Your task to perform on an android device: Open notification settings Image 0: 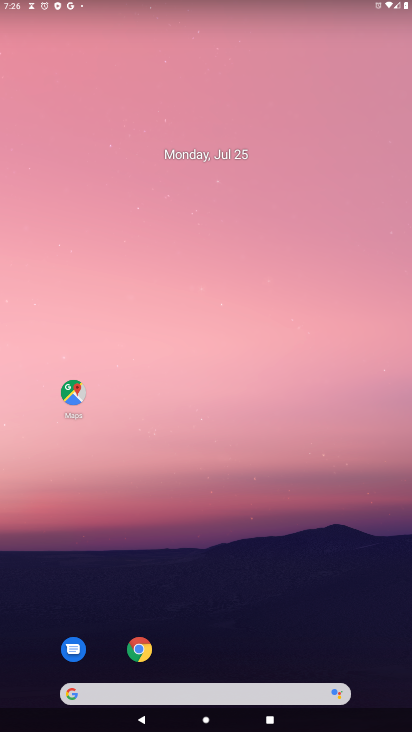
Step 0: click (167, 8)
Your task to perform on an android device: Open notification settings Image 1: 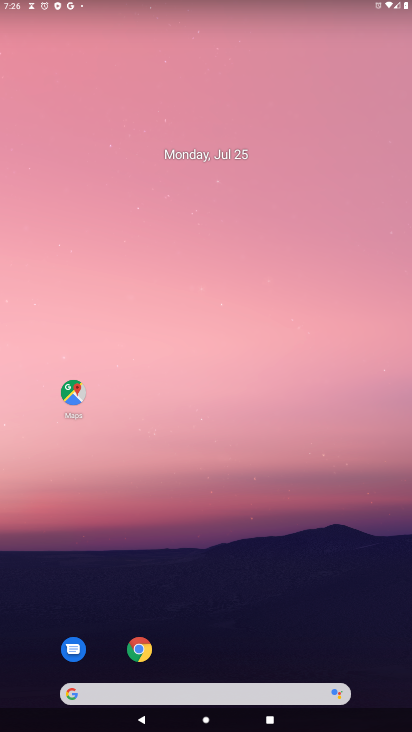
Step 1: drag from (303, 679) to (292, 3)
Your task to perform on an android device: Open notification settings Image 2: 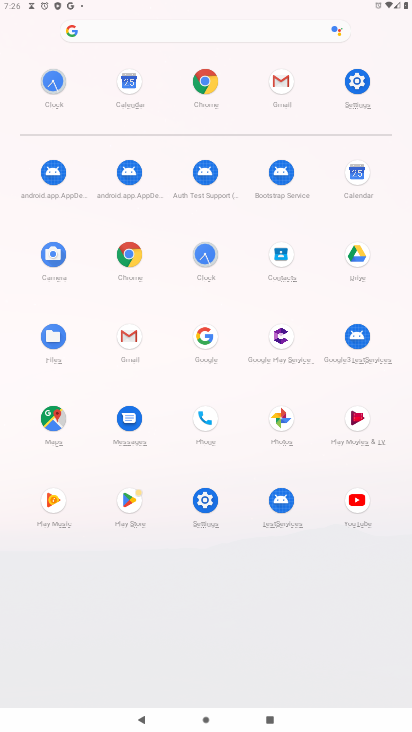
Step 2: click (363, 77)
Your task to perform on an android device: Open notification settings Image 3: 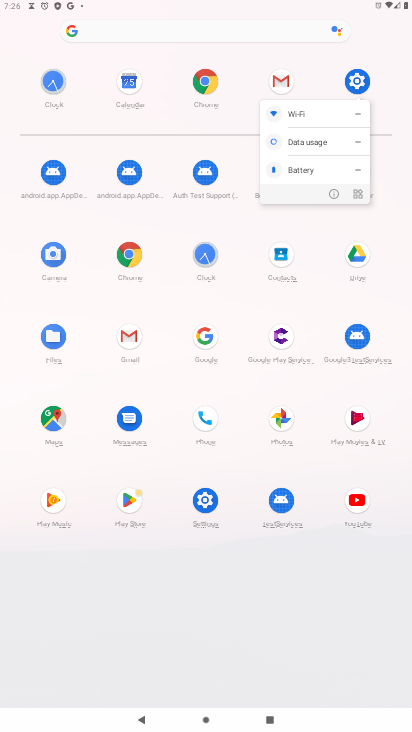
Step 3: click (363, 77)
Your task to perform on an android device: Open notification settings Image 4: 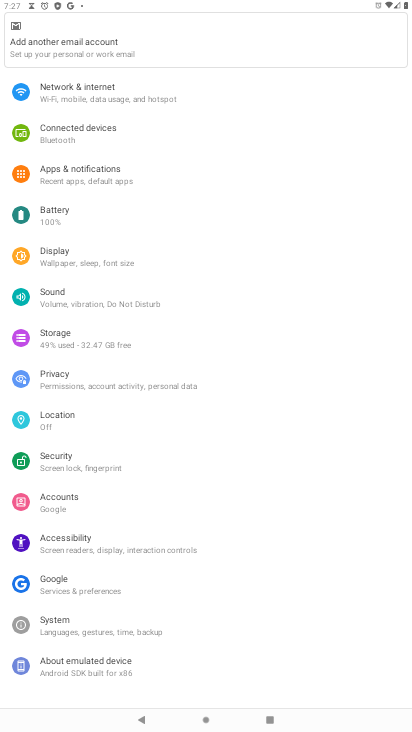
Step 4: click (103, 164)
Your task to perform on an android device: Open notification settings Image 5: 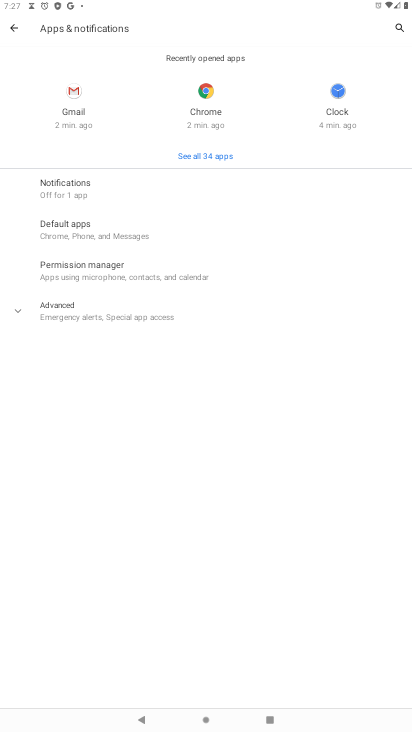
Step 5: task complete